Your task to perform on an android device: Go to Android settings Image 0: 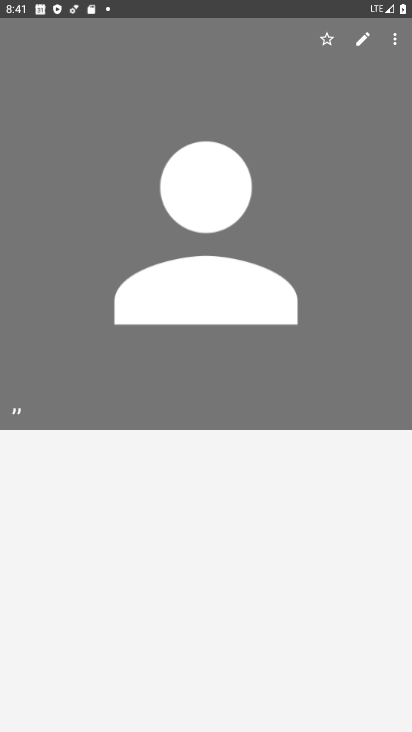
Step 0: drag from (193, 596) to (224, 297)
Your task to perform on an android device: Go to Android settings Image 1: 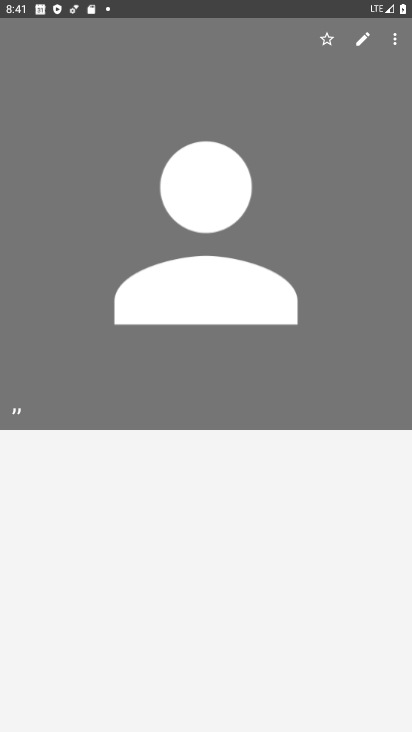
Step 1: drag from (267, 571) to (324, 250)
Your task to perform on an android device: Go to Android settings Image 2: 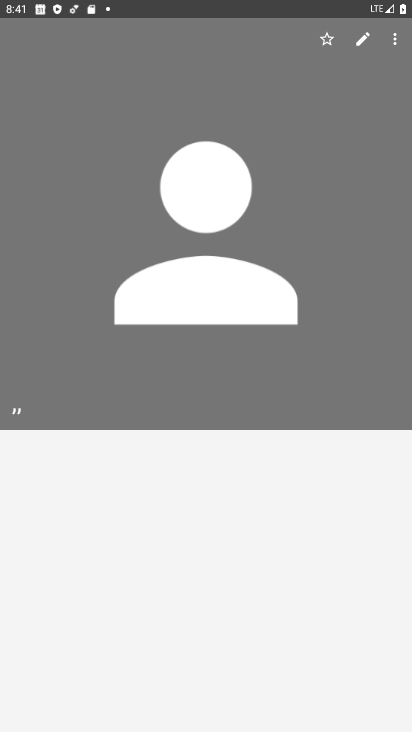
Step 2: press home button
Your task to perform on an android device: Go to Android settings Image 3: 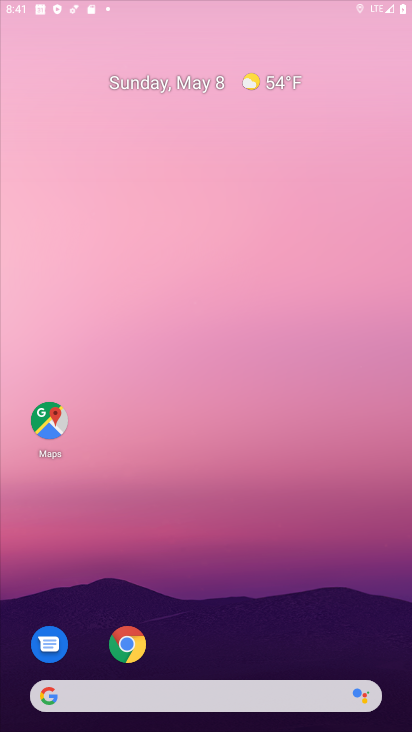
Step 3: drag from (211, 673) to (212, 331)
Your task to perform on an android device: Go to Android settings Image 4: 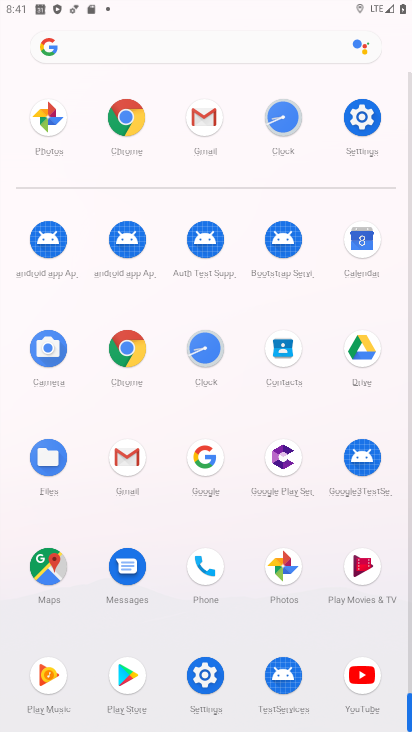
Step 4: click (365, 116)
Your task to perform on an android device: Go to Android settings Image 5: 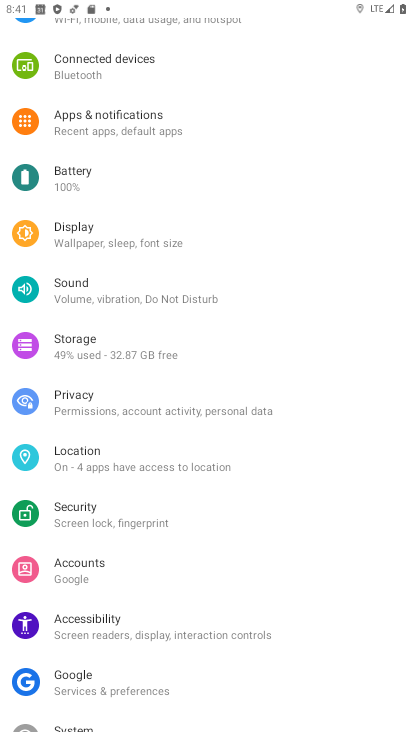
Step 5: drag from (195, 614) to (238, 0)
Your task to perform on an android device: Go to Android settings Image 6: 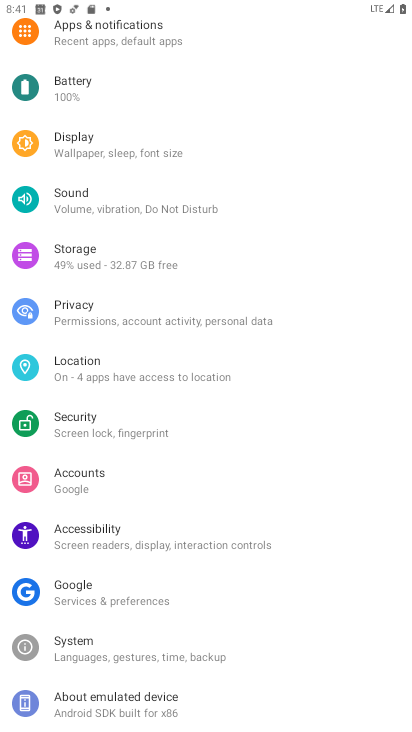
Step 6: drag from (196, 677) to (205, 287)
Your task to perform on an android device: Go to Android settings Image 7: 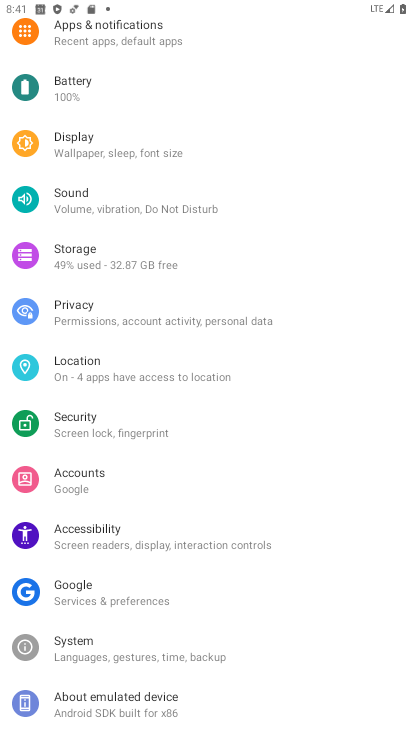
Step 7: click (178, 694)
Your task to perform on an android device: Go to Android settings Image 8: 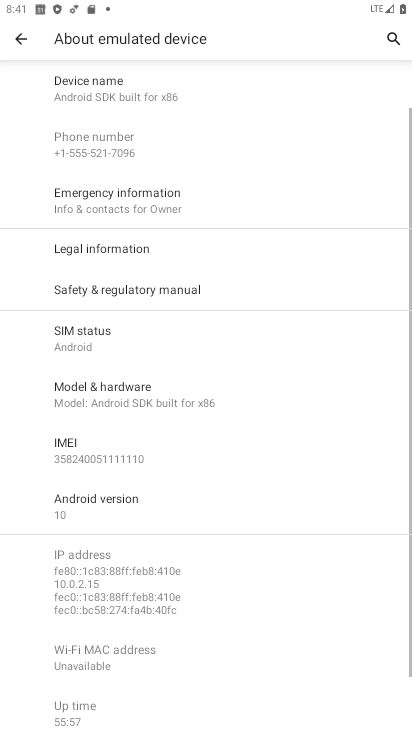
Step 8: drag from (186, 650) to (204, 316)
Your task to perform on an android device: Go to Android settings Image 9: 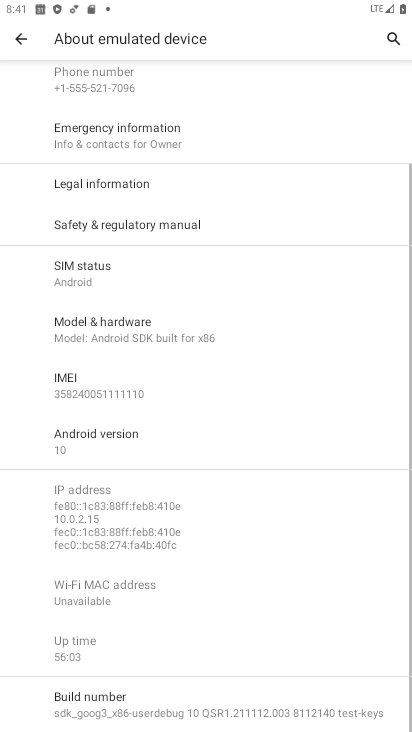
Step 9: drag from (195, 502) to (198, 344)
Your task to perform on an android device: Go to Android settings Image 10: 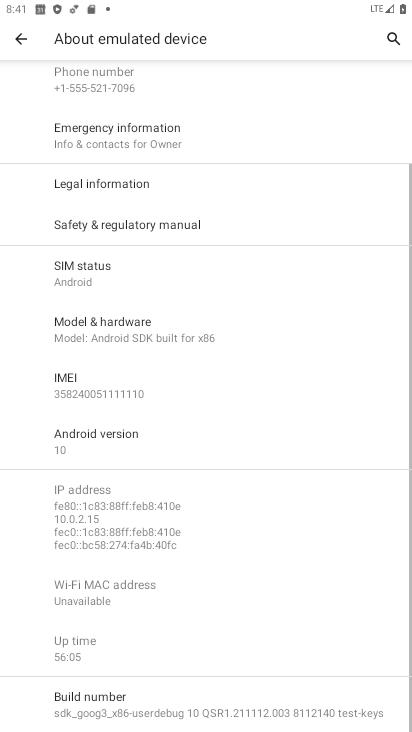
Step 10: click (131, 445)
Your task to perform on an android device: Go to Android settings Image 11: 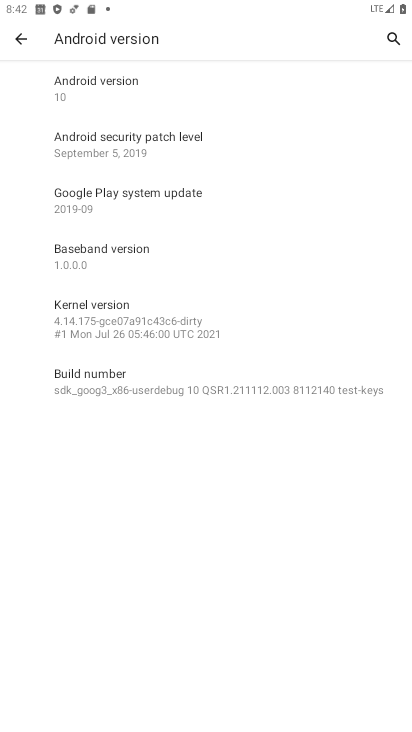
Step 11: click (159, 92)
Your task to perform on an android device: Go to Android settings Image 12: 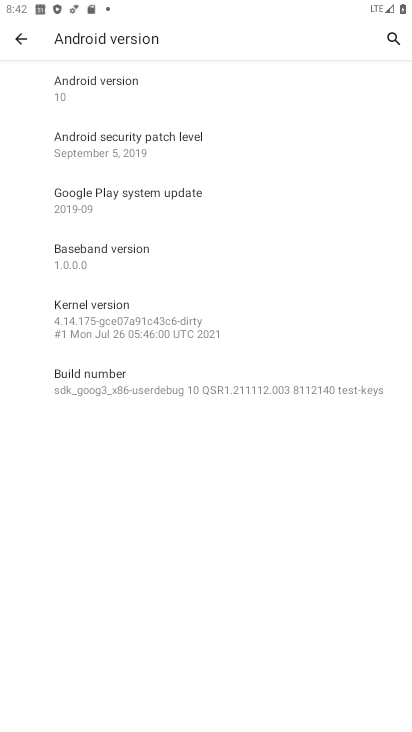
Step 12: task complete